Your task to perform on an android device: turn pop-ups off in chrome Image 0: 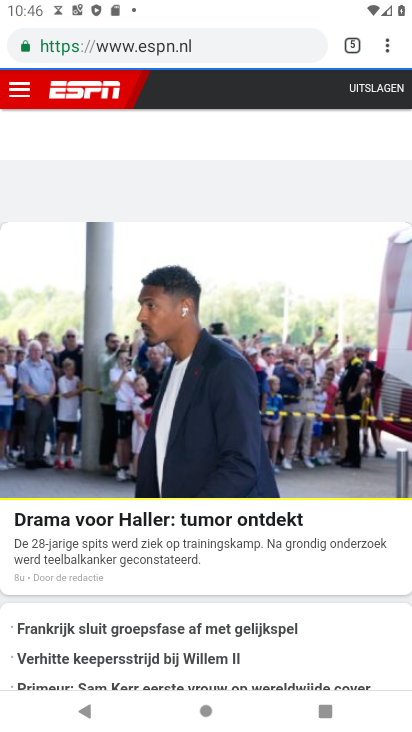
Step 0: press home button
Your task to perform on an android device: turn pop-ups off in chrome Image 1: 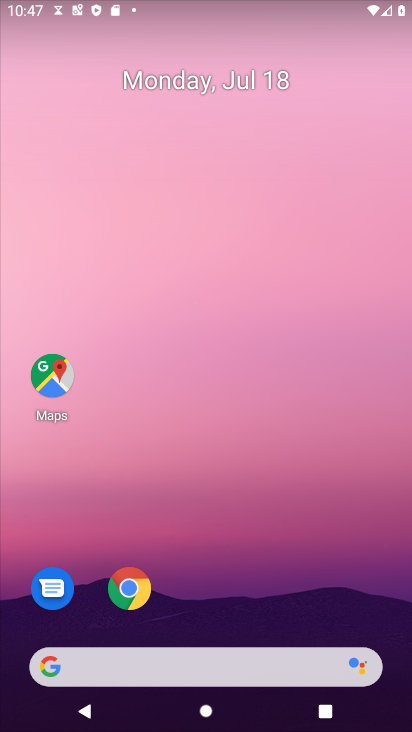
Step 1: click (129, 585)
Your task to perform on an android device: turn pop-ups off in chrome Image 2: 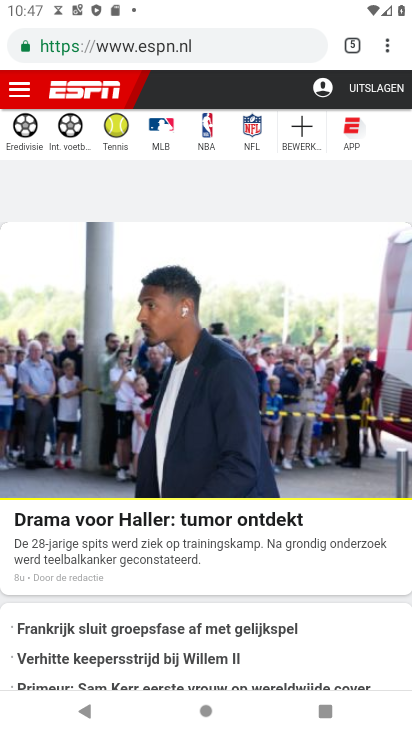
Step 2: click (387, 49)
Your task to perform on an android device: turn pop-ups off in chrome Image 3: 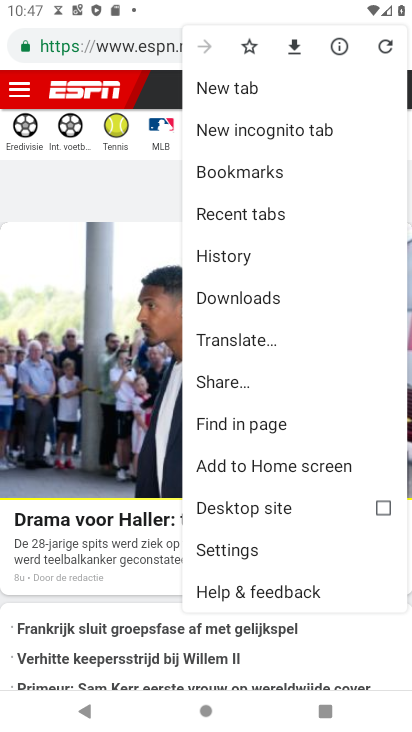
Step 3: click (233, 549)
Your task to perform on an android device: turn pop-ups off in chrome Image 4: 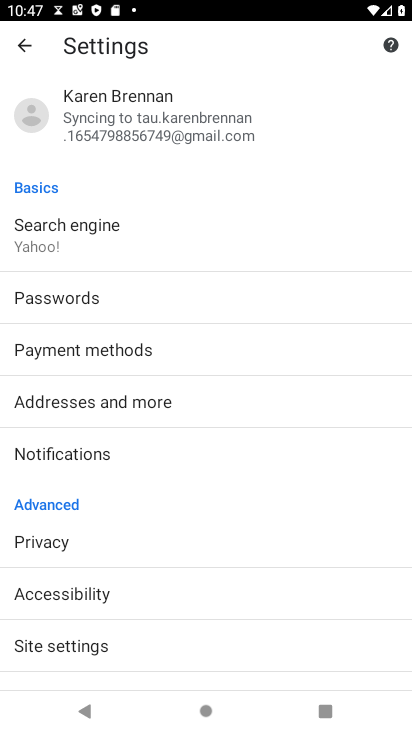
Step 4: click (57, 642)
Your task to perform on an android device: turn pop-ups off in chrome Image 5: 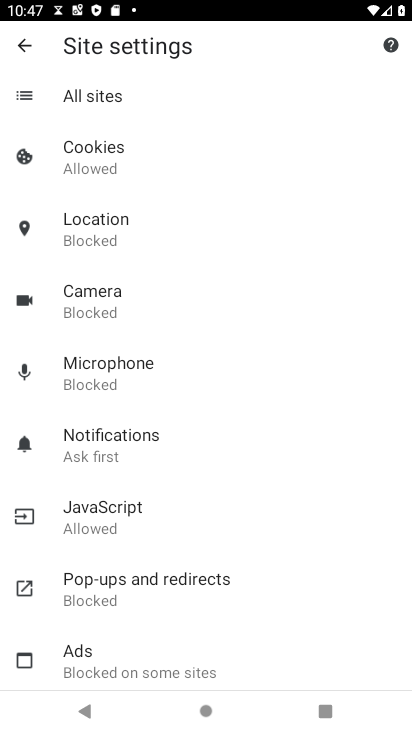
Step 5: click (88, 581)
Your task to perform on an android device: turn pop-ups off in chrome Image 6: 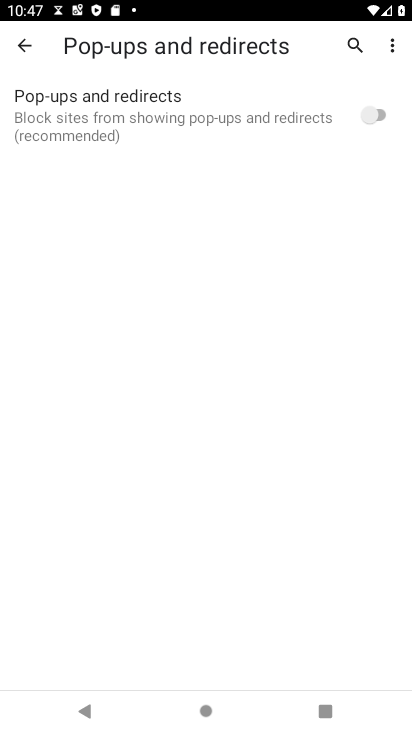
Step 6: task complete